Your task to perform on an android device: Open calendar and show me the second week of next month Image 0: 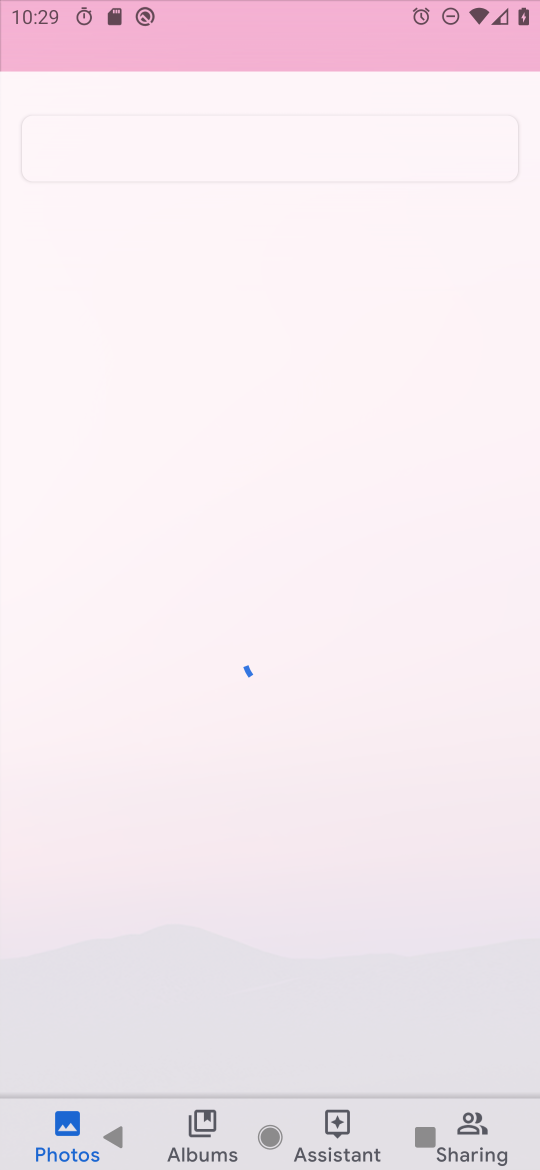
Step 0: press home button
Your task to perform on an android device: Open calendar and show me the second week of next month Image 1: 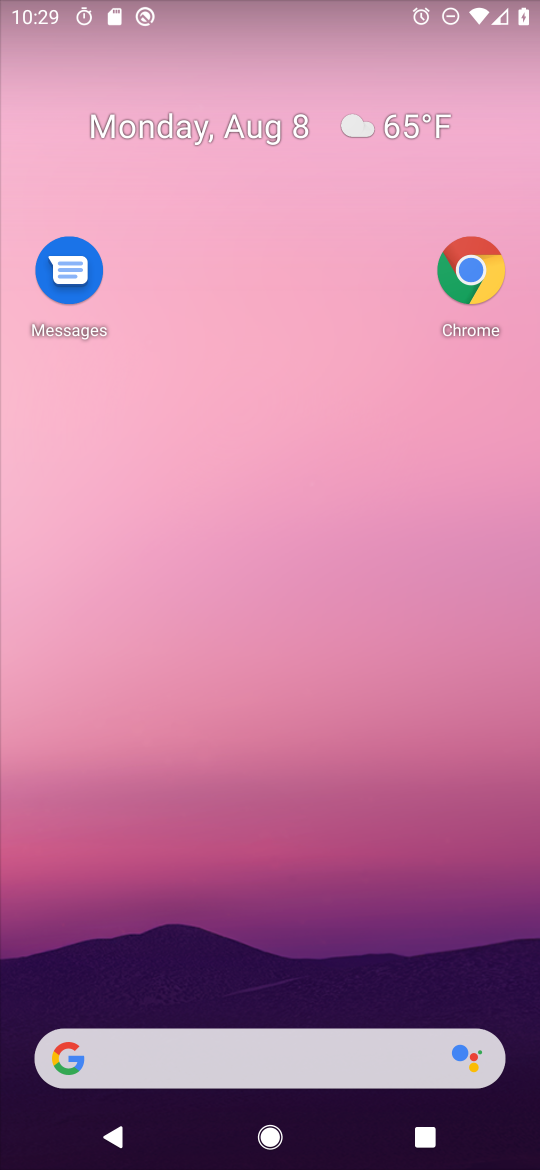
Step 1: drag from (252, 979) to (303, 347)
Your task to perform on an android device: Open calendar and show me the second week of next month Image 2: 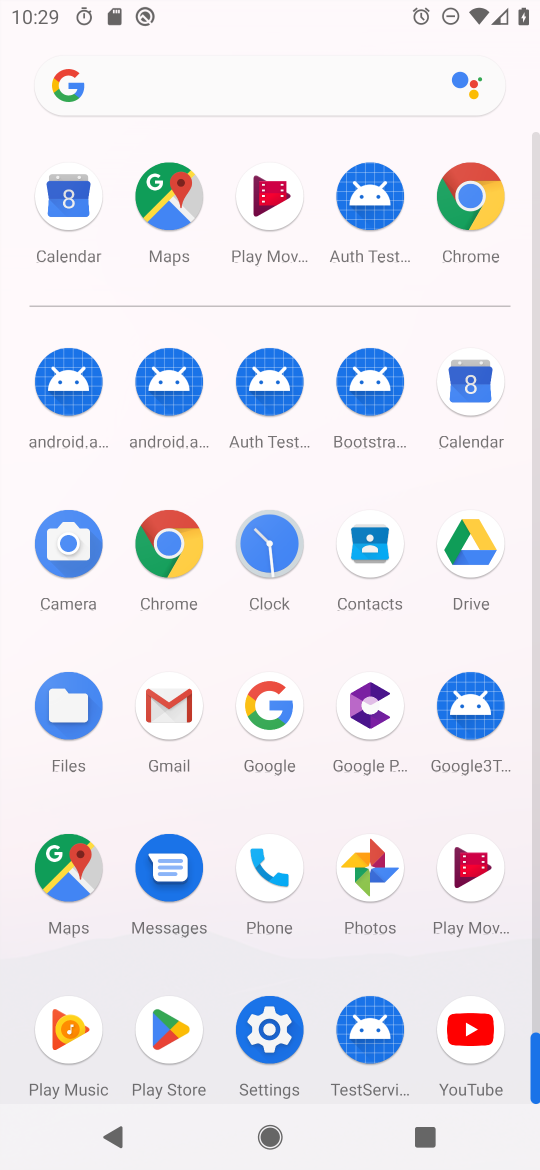
Step 2: drag from (302, 954) to (308, 345)
Your task to perform on an android device: Open calendar and show me the second week of next month Image 3: 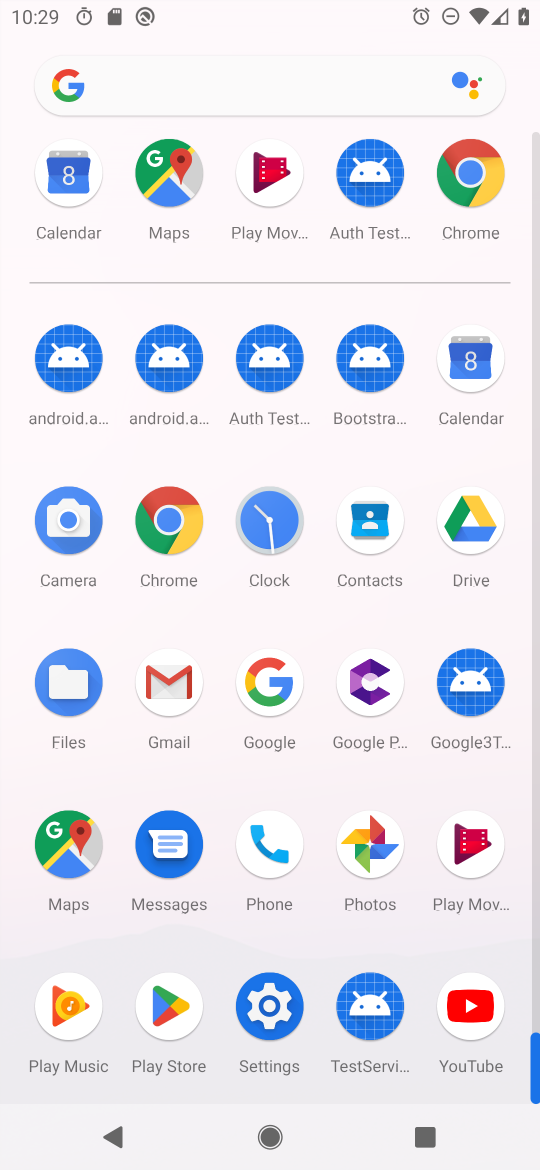
Step 3: drag from (306, 898) to (268, 467)
Your task to perform on an android device: Open calendar and show me the second week of next month Image 4: 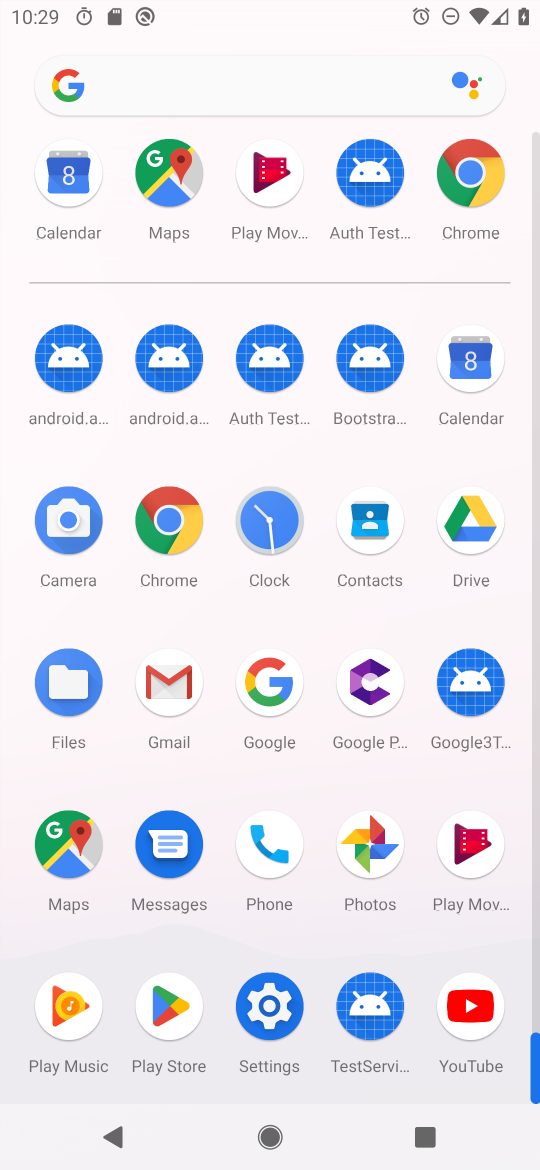
Step 4: drag from (340, 893) to (358, 657)
Your task to perform on an android device: Open calendar and show me the second week of next month Image 5: 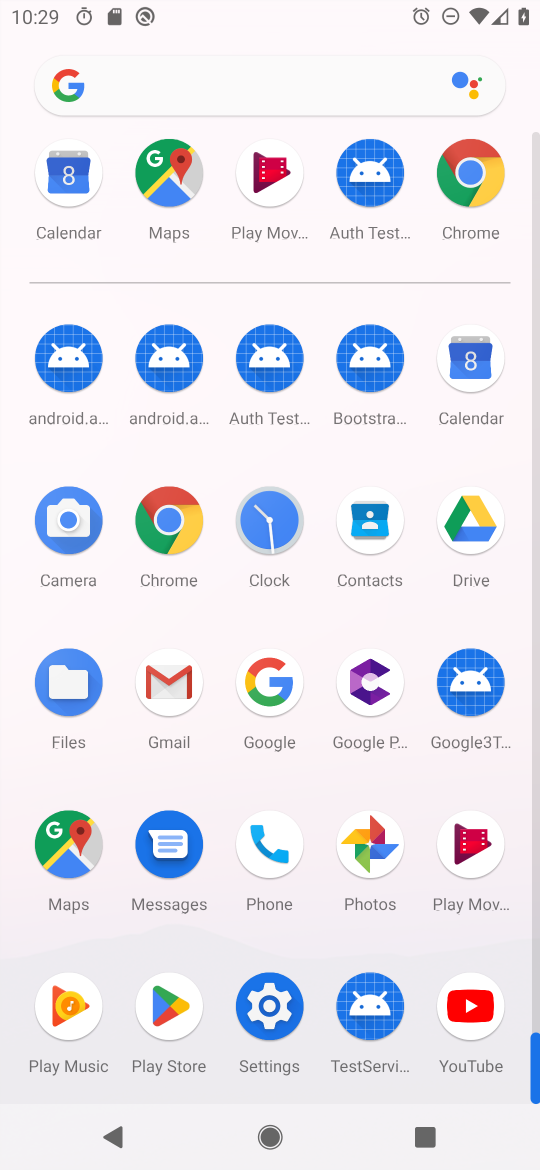
Step 5: drag from (301, 928) to (316, 363)
Your task to perform on an android device: Open calendar and show me the second week of next month Image 6: 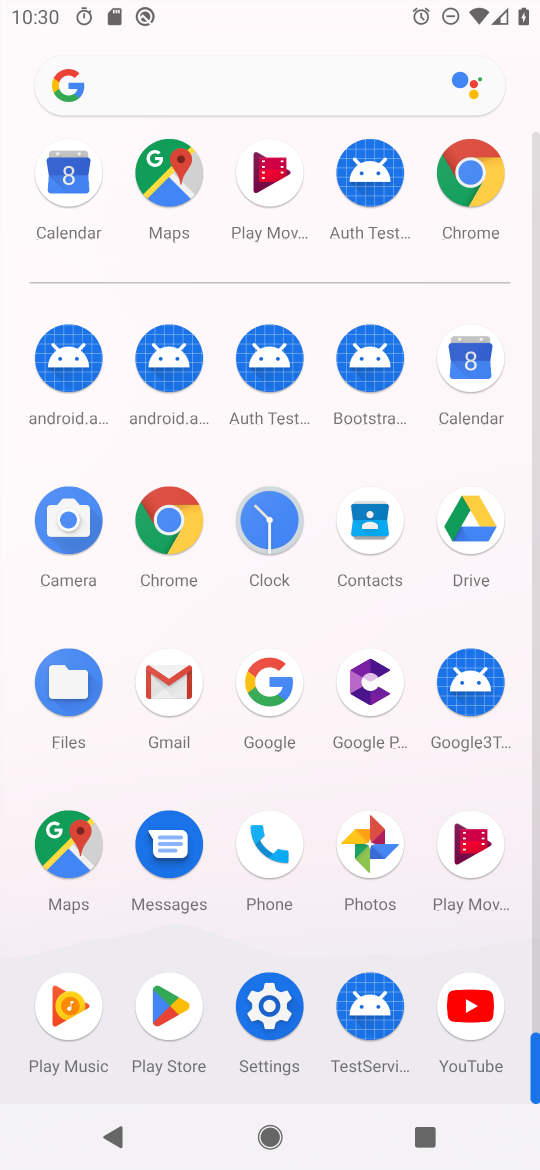
Step 6: drag from (321, 951) to (345, 620)
Your task to perform on an android device: Open calendar and show me the second week of next month Image 7: 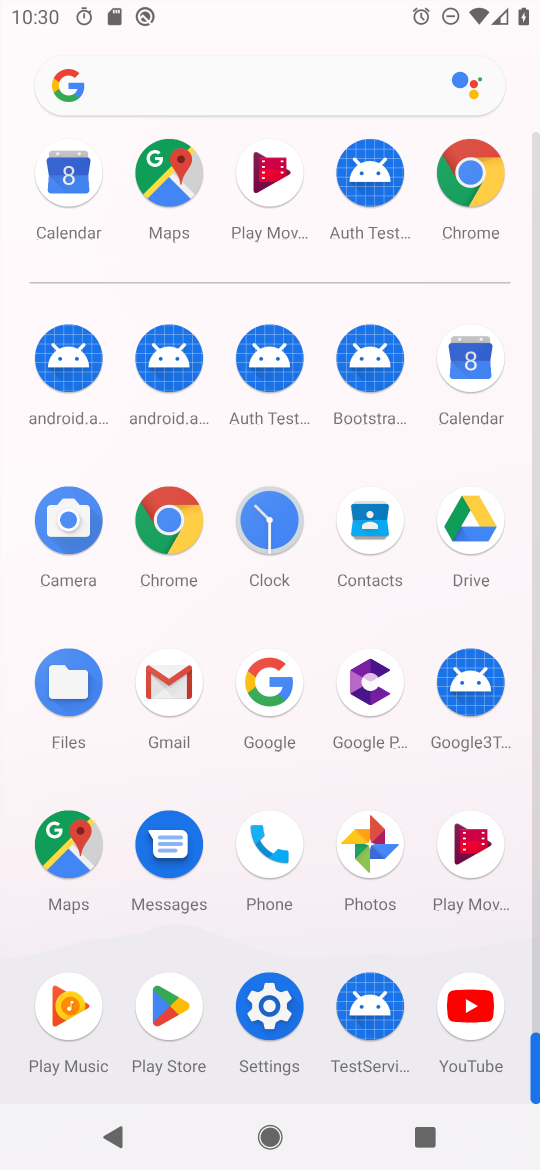
Step 7: click (474, 356)
Your task to perform on an android device: Open calendar and show me the second week of next month Image 8: 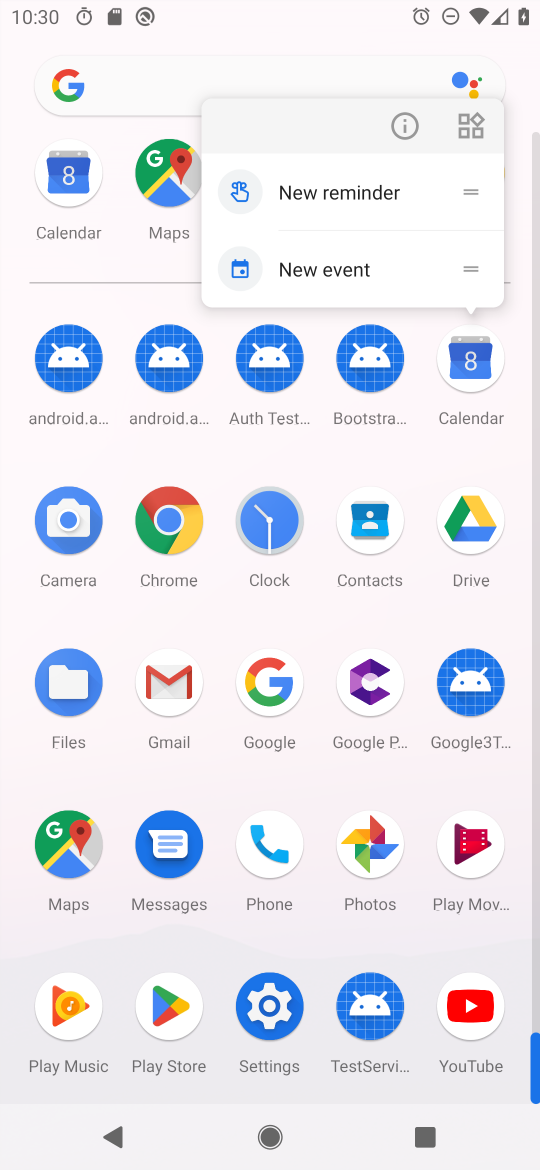
Step 8: click (415, 120)
Your task to perform on an android device: Open calendar and show me the second week of next month Image 9: 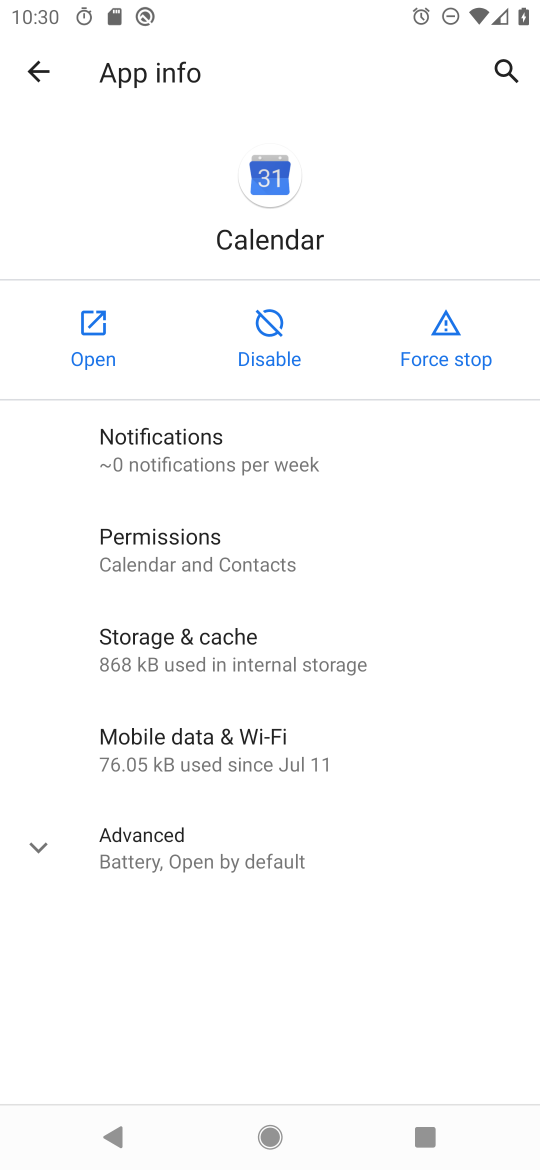
Step 9: click (69, 371)
Your task to perform on an android device: Open calendar and show me the second week of next month Image 10: 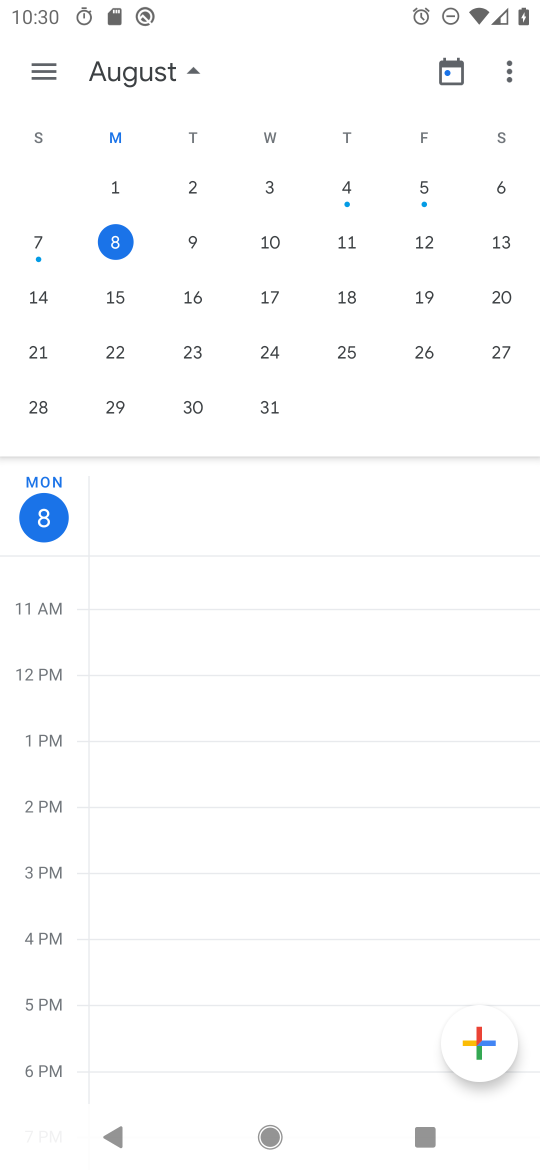
Step 10: click (124, 251)
Your task to perform on an android device: Open calendar and show me the second week of next month Image 11: 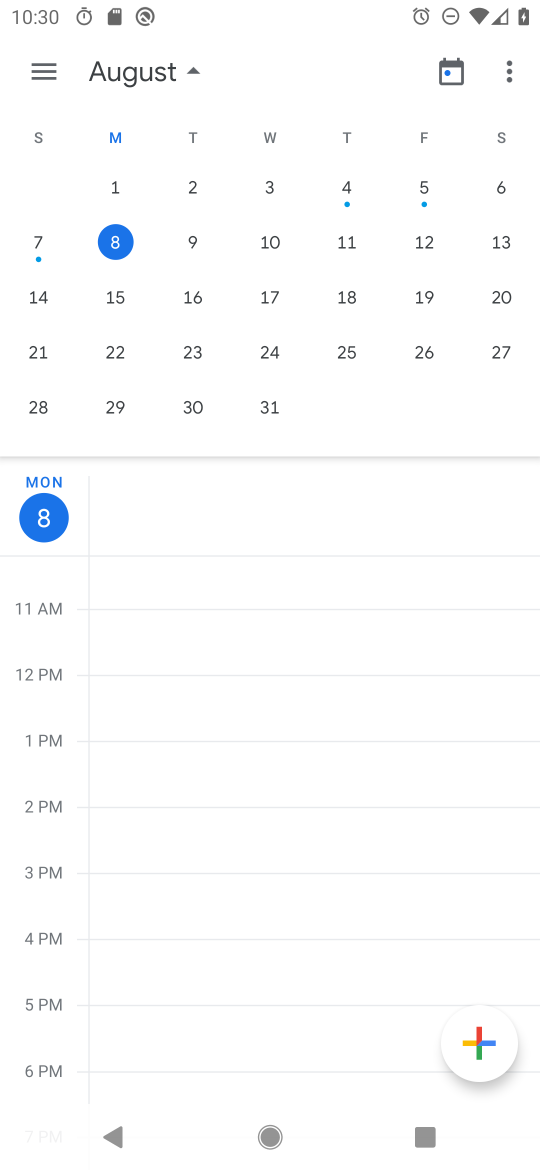
Step 11: click (422, 251)
Your task to perform on an android device: Open calendar and show me the second week of next month Image 12: 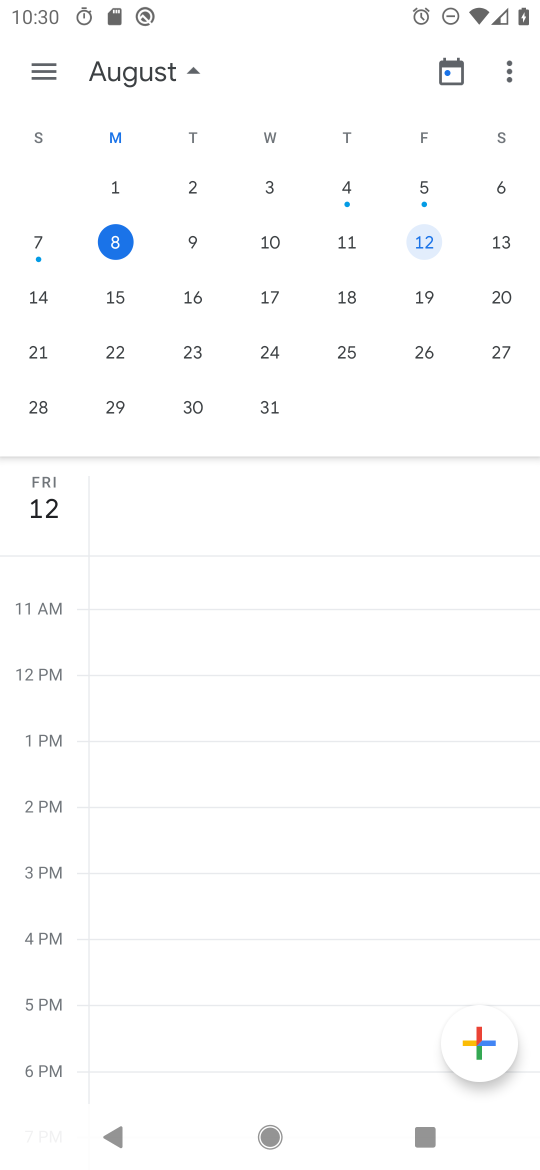
Step 12: drag from (483, 329) to (8, 318)
Your task to perform on an android device: Open calendar and show me the second week of next month Image 13: 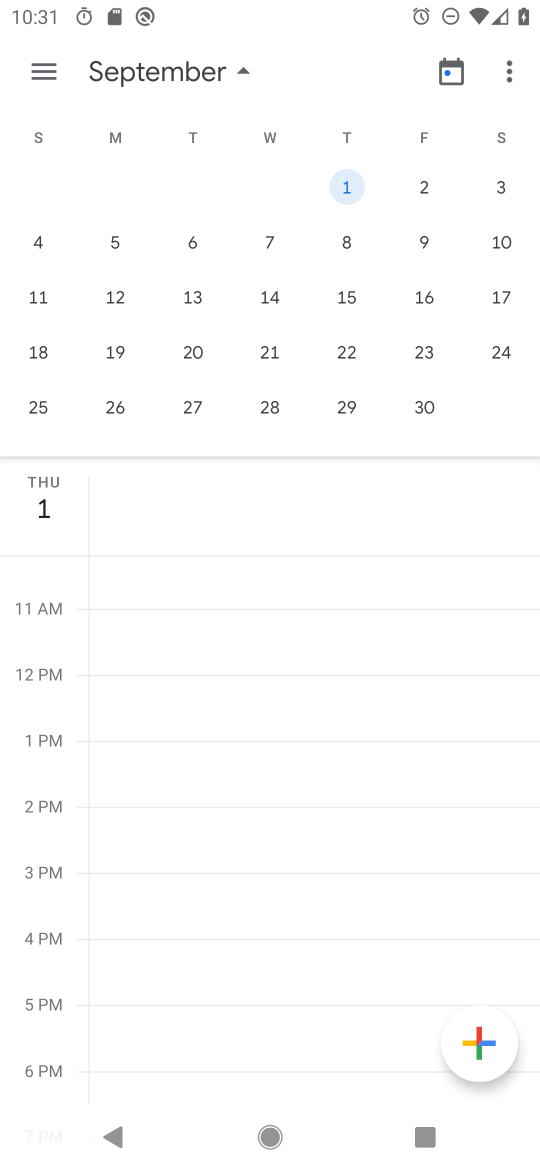
Step 13: click (433, 249)
Your task to perform on an android device: Open calendar and show me the second week of next month Image 14: 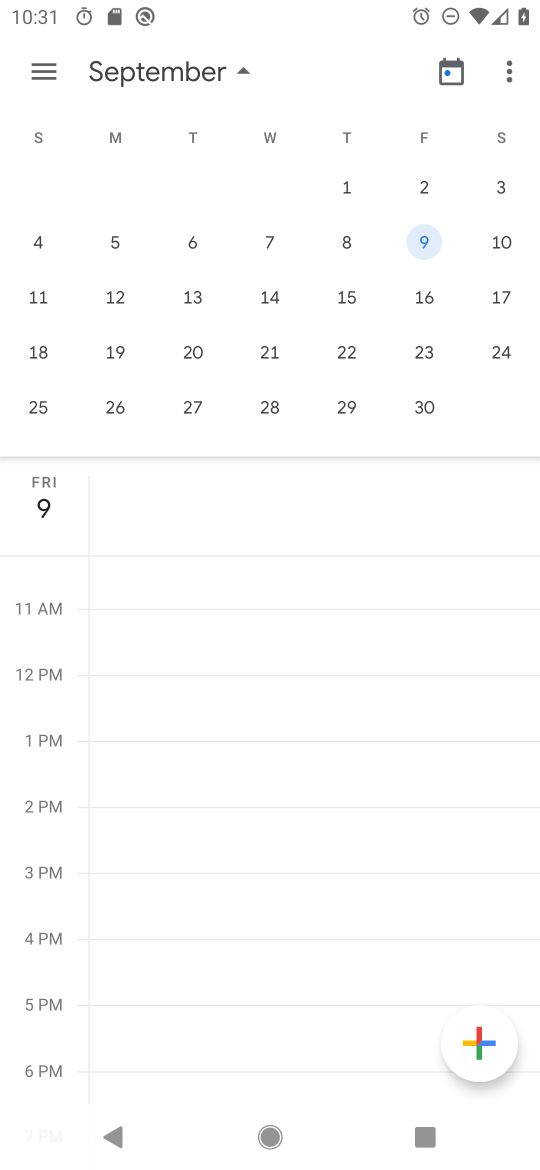
Step 14: task complete